Your task to perform on an android device: uninstall "Google Sheets" Image 0: 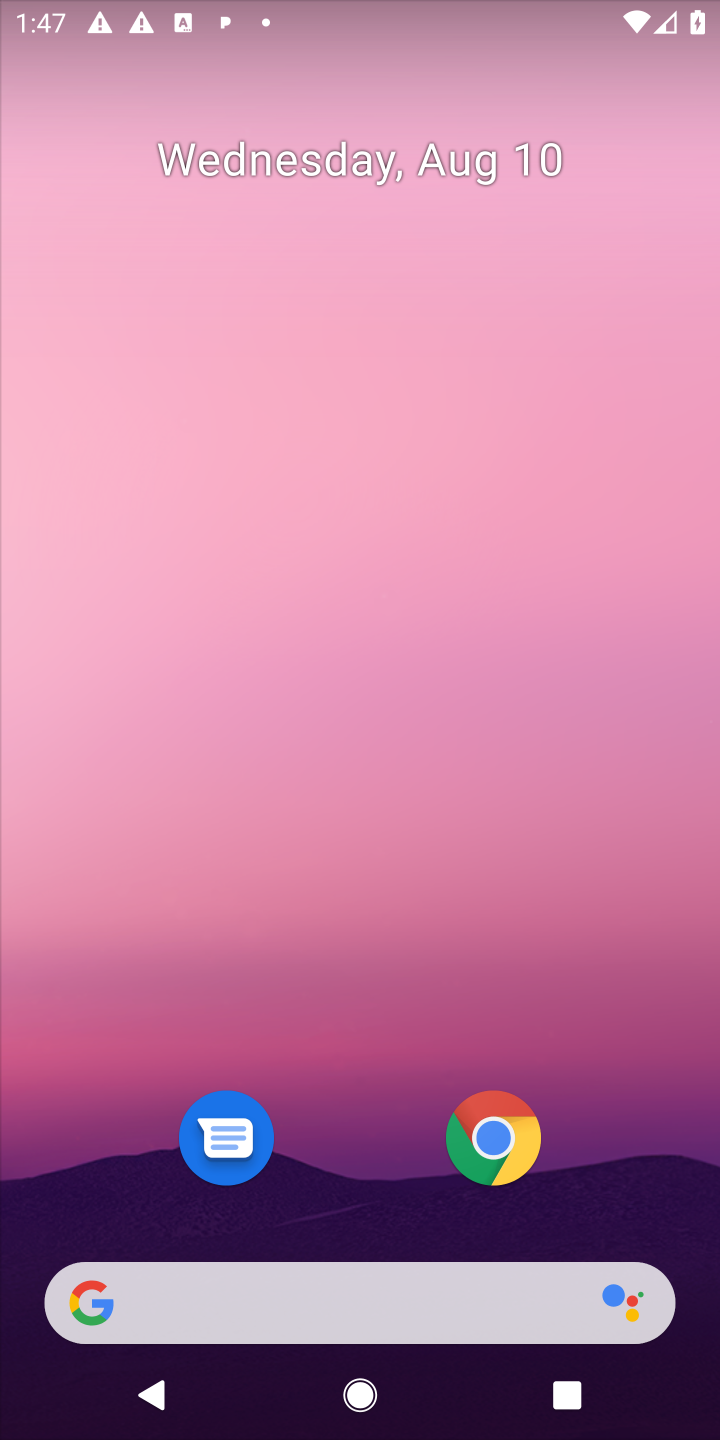
Step 0: drag from (603, 1019) to (587, 65)
Your task to perform on an android device: uninstall "Google Sheets" Image 1: 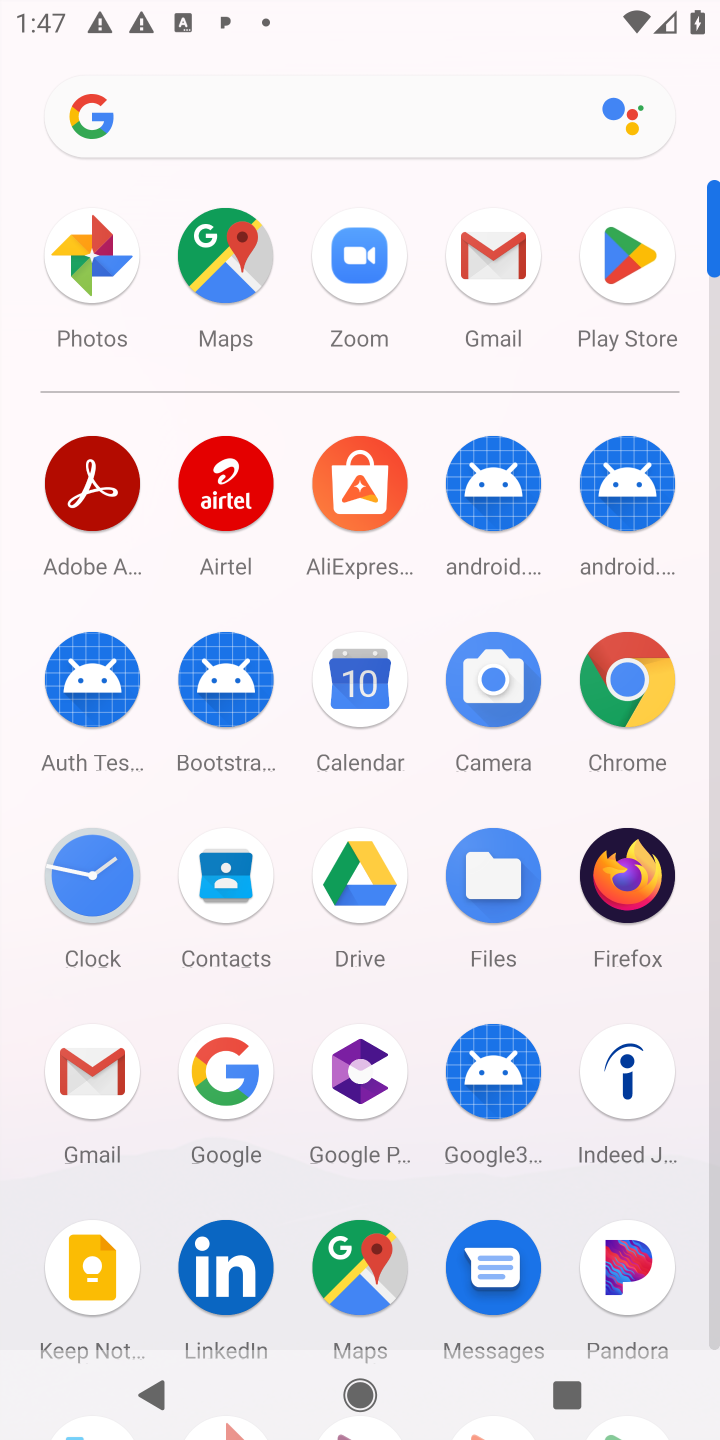
Step 1: click (634, 263)
Your task to perform on an android device: uninstall "Google Sheets" Image 2: 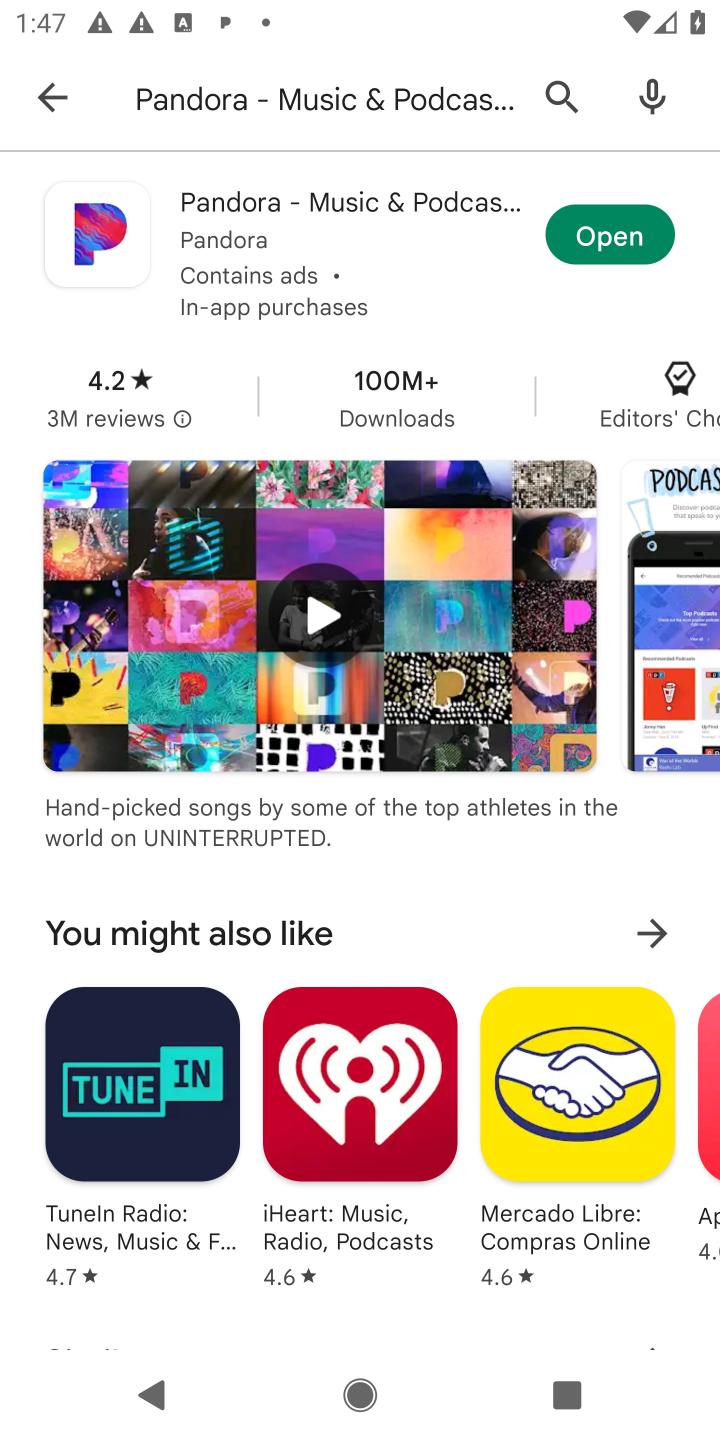
Step 2: click (561, 82)
Your task to perform on an android device: uninstall "Google Sheets" Image 3: 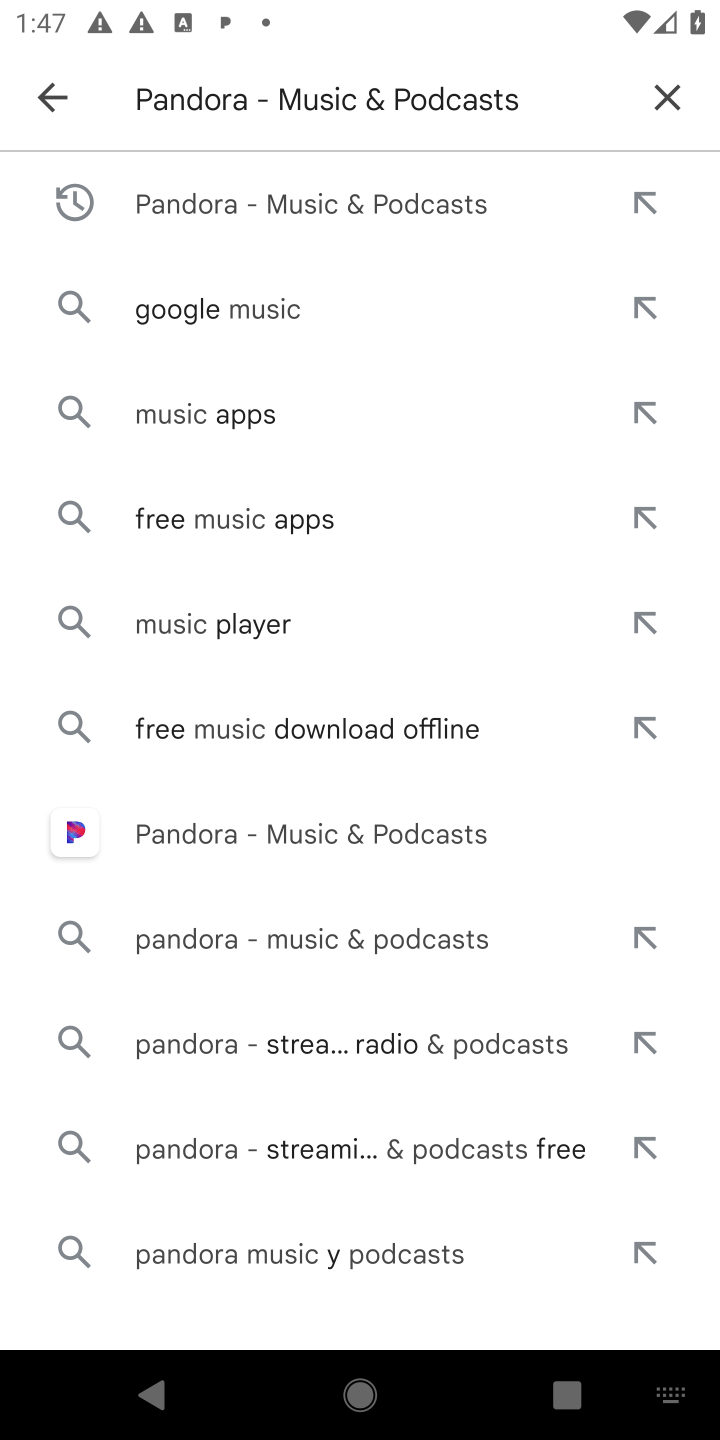
Step 3: click (669, 91)
Your task to perform on an android device: uninstall "Google Sheets" Image 4: 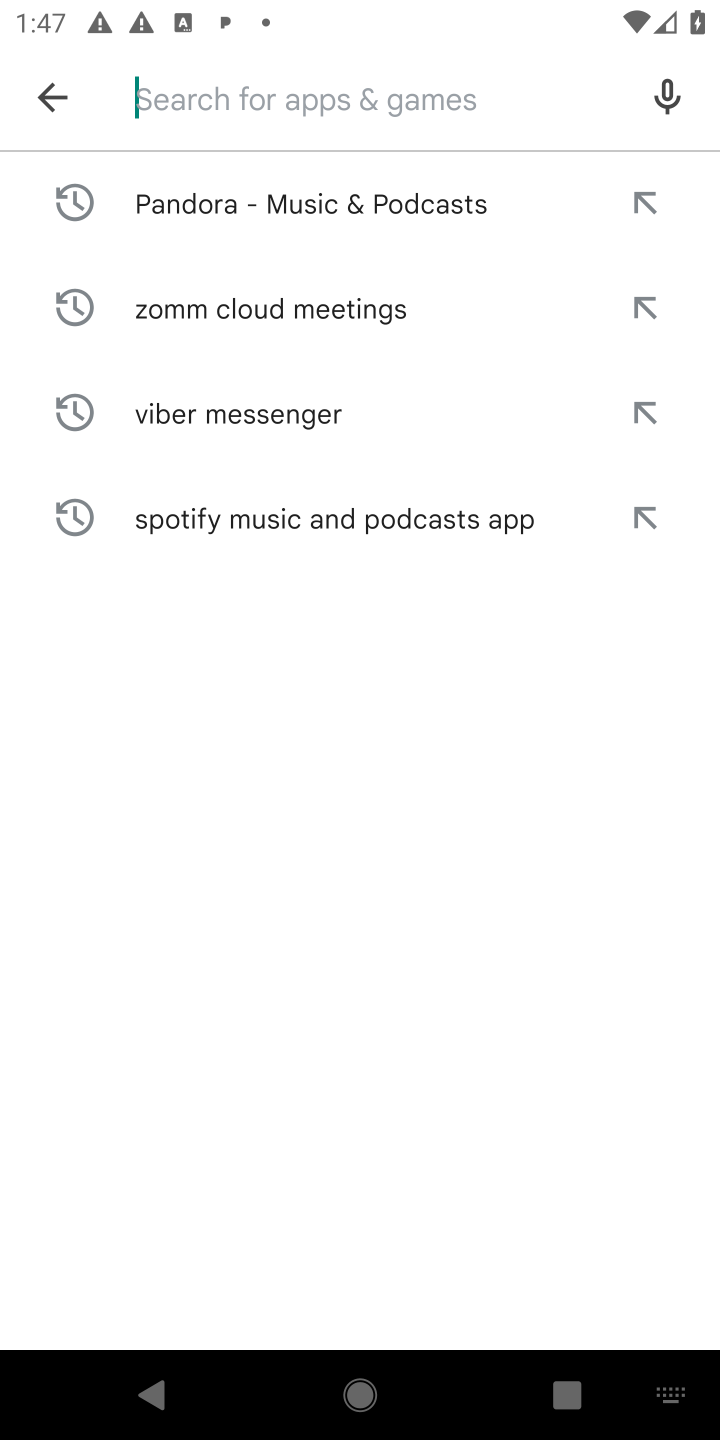
Step 4: type "google sheets"
Your task to perform on an android device: uninstall "Google Sheets" Image 5: 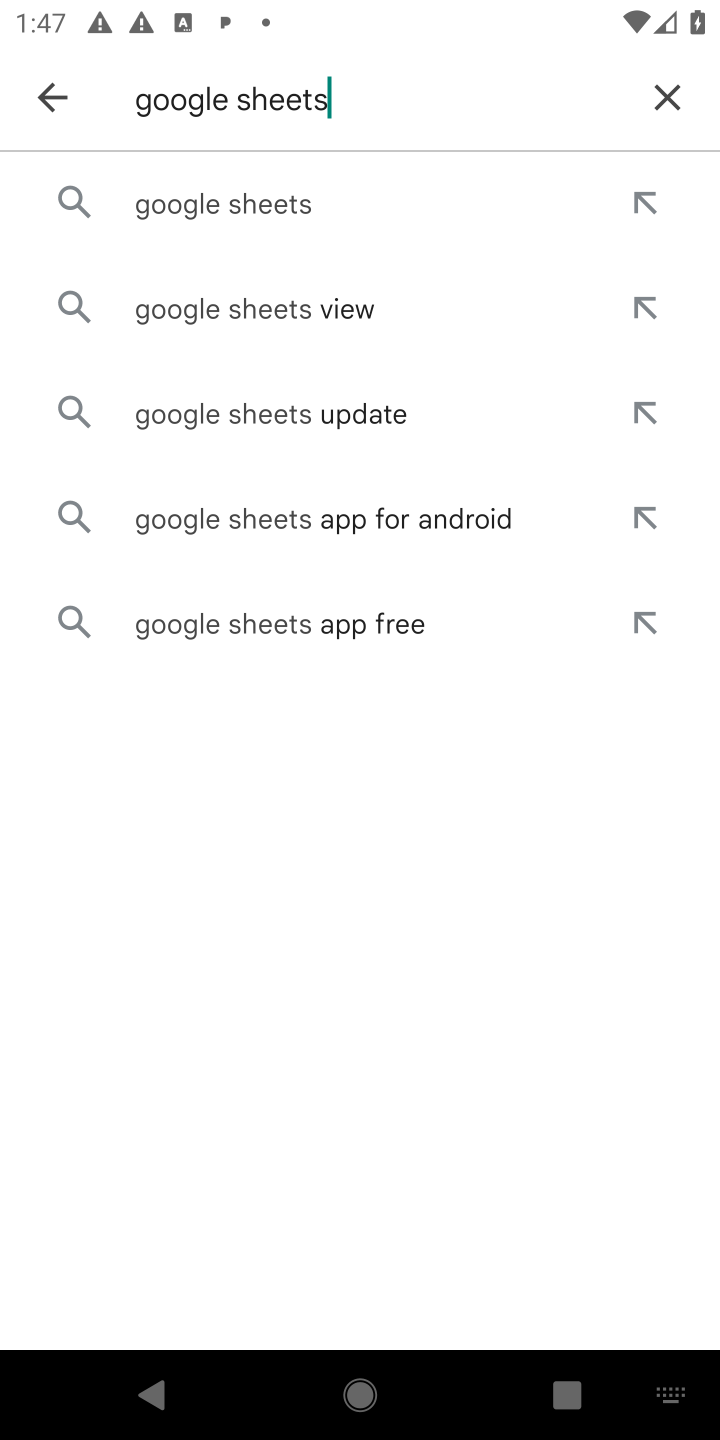
Step 5: click (357, 200)
Your task to perform on an android device: uninstall "Google Sheets" Image 6: 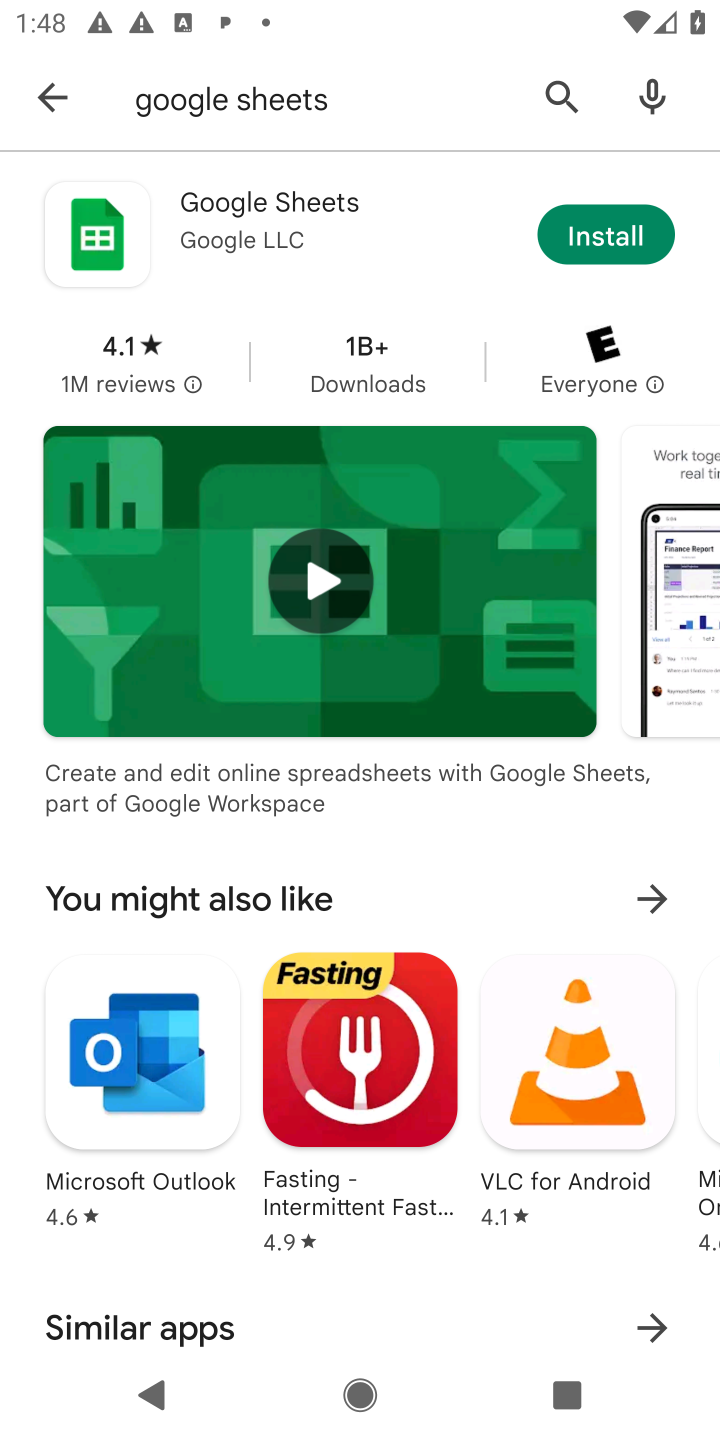
Step 6: task complete